Your task to perform on an android device: Search for Mexican restaurants on Maps Image 0: 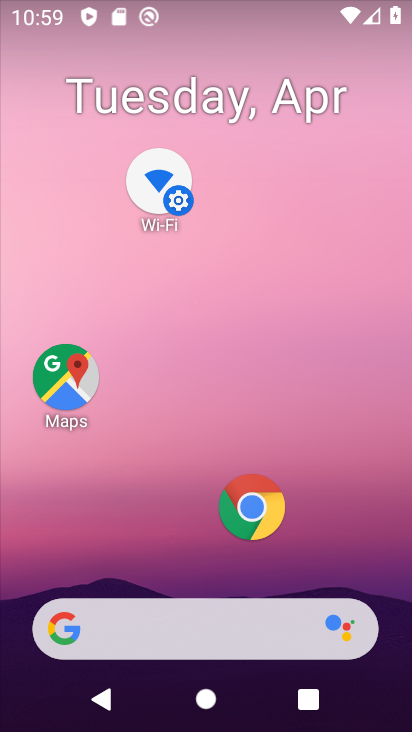
Step 0: click (55, 385)
Your task to perform on an android device: Search for Mexican restaurants on Maps Image 1: 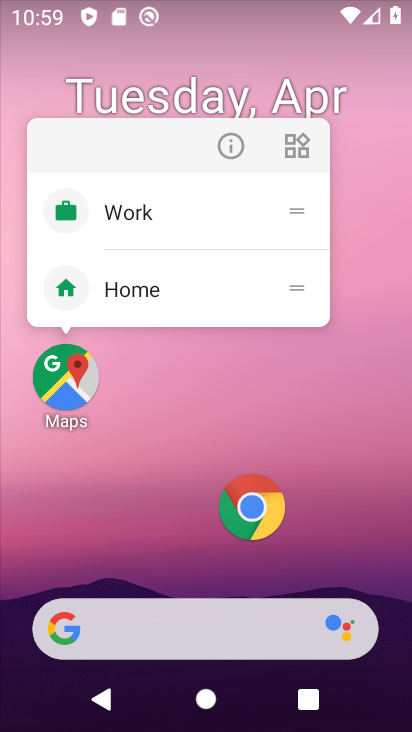
Step 1: click (55, 384)
Your task to perform on an android device: Search for Mexican restaurants on Maps Image 2: 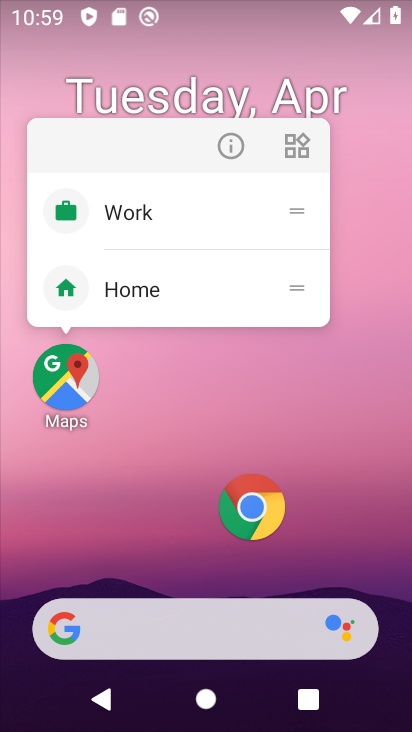
Step 2: click (55, 384)
Your task to perform on an android device: Search for Mexican restaurants on Maps Image 3: 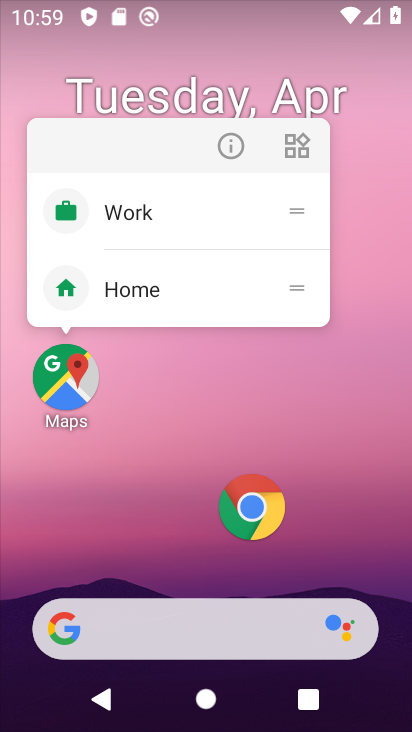
Step 3: click (55, 384)
Your task to perform on an android device: Search for Mexican restaurants on Maps Image 4: 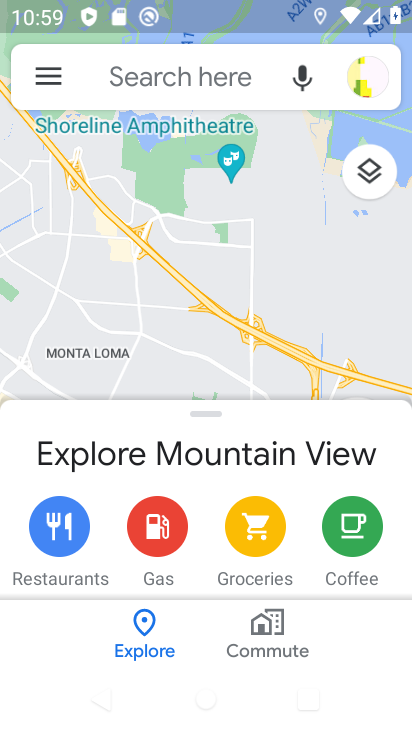
Step 4: click (181, 52)
Your task to perform on an android device: Search for Mexican restaurants on Maps Image 5: 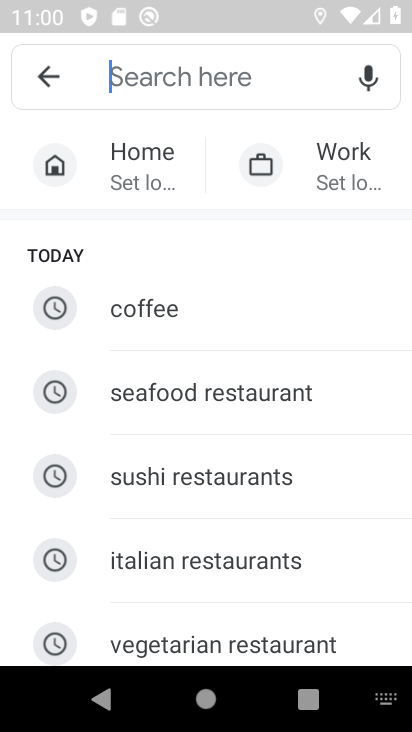
Step 5: drag from (115, 613) to (215, 259)
Your task to perform on an android device: Search for Mexican restaurants on Maps Image 6: 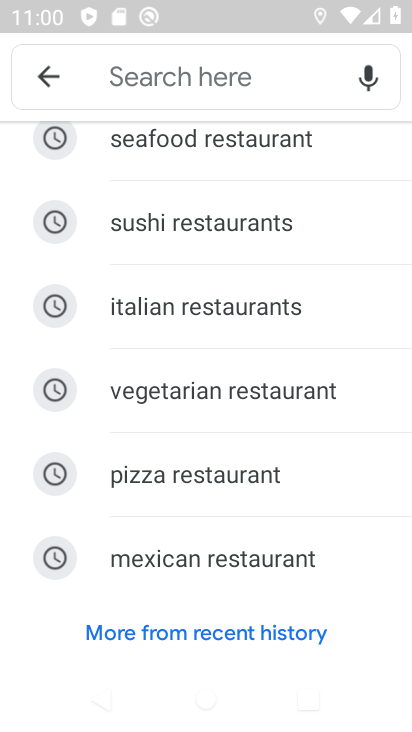
Step 6: click (199, 555)
Your task to perform on an android device: Search for Mexican restaurants on Maps Image 7: 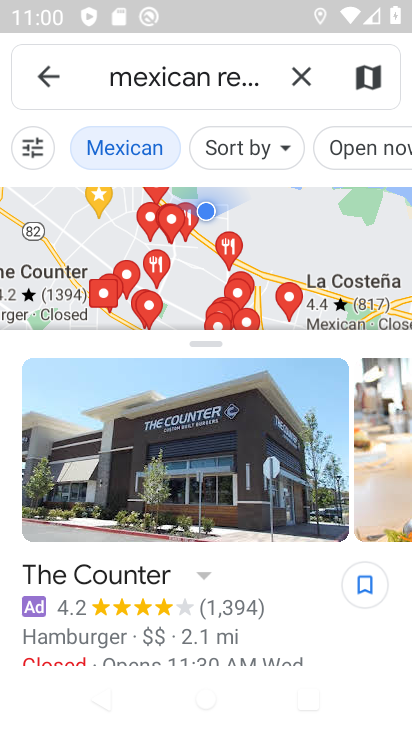
Step 7: task complete